Your task to perform on an android device: What's the weather going to be tomorrow? Image 0: 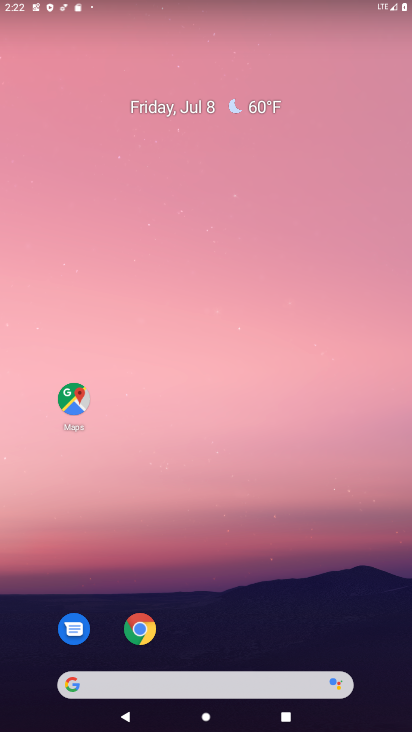
Step 0: drag from (201, 634) to (151, 261)
Your task to perform on an android device: What's the weather going to be tomorrow? Image 1: 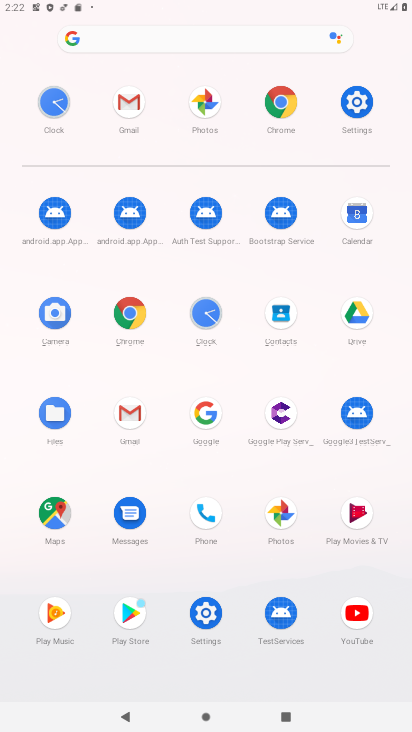
Step 1: click (205, 420)
Your task to perform on an android device: What's the weather going to be tomorrow? Image 2: 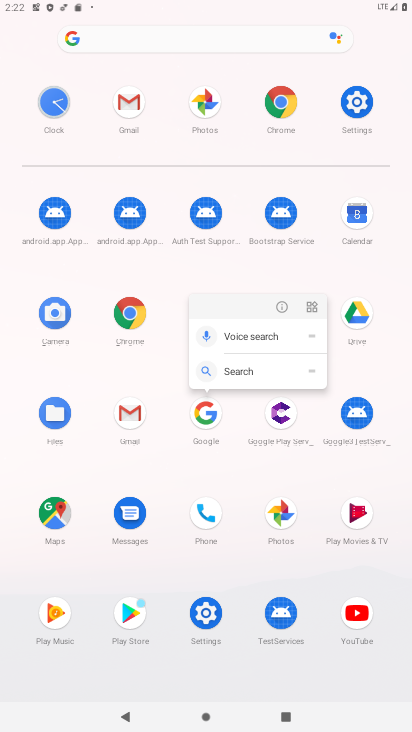
Step 2: click (205, 420)
Your task to perform on an android device: What's the weather going to be tomorrow? Image 3: 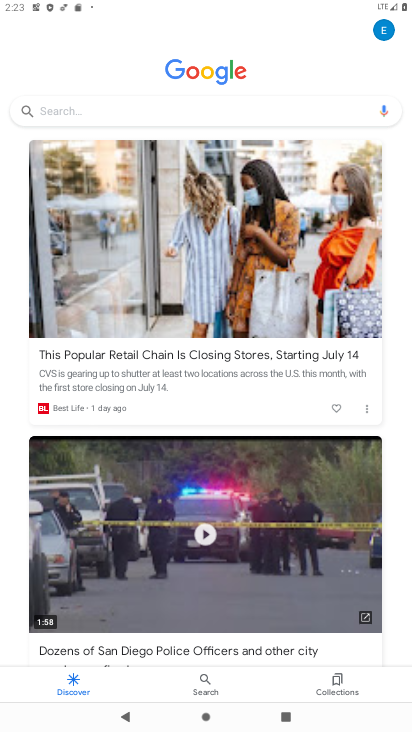
Step 3: click (132, 103)
Your task to perform on an android device: What's the weather going to be tomorrow? Image 4: 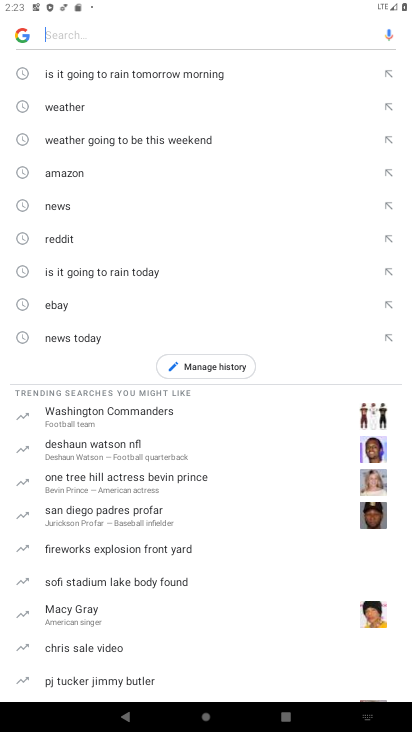
Step 4: click (74, 104)
Your task to perform on an android device: What's the weather going to be tomorrow? Image 5: 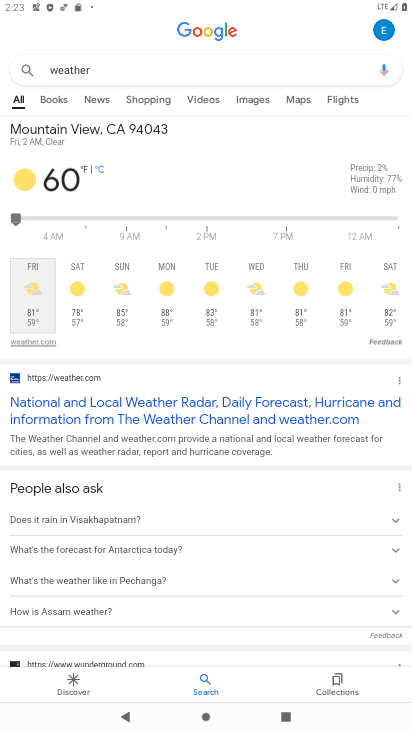
Step 5: task complete